Your task to perform on an android device: Open CNN.com Image 0: 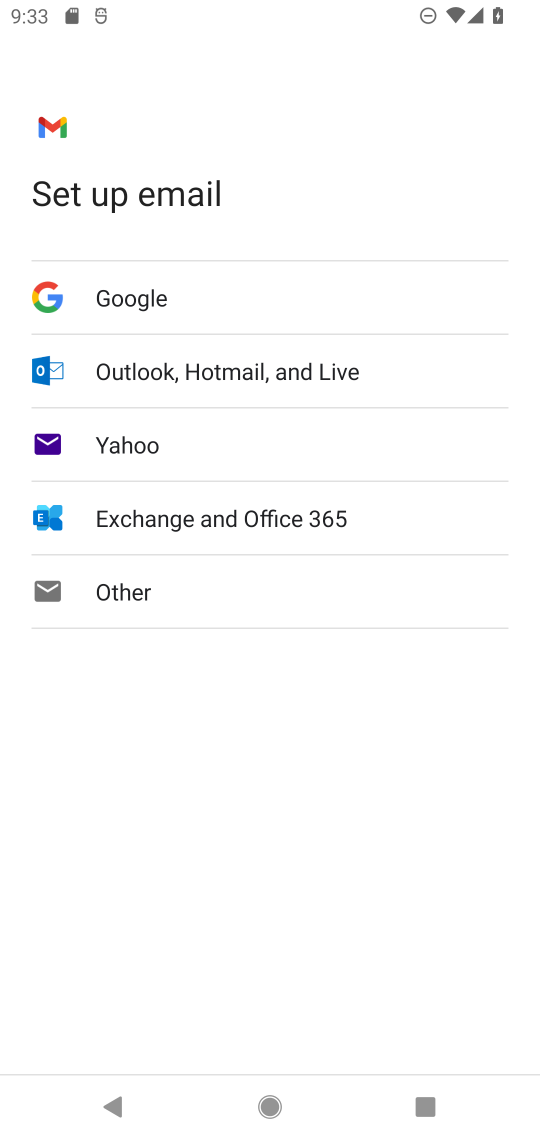
Step 0: press home button
Your task to perform on an android device: Open CNN.com Image 1: 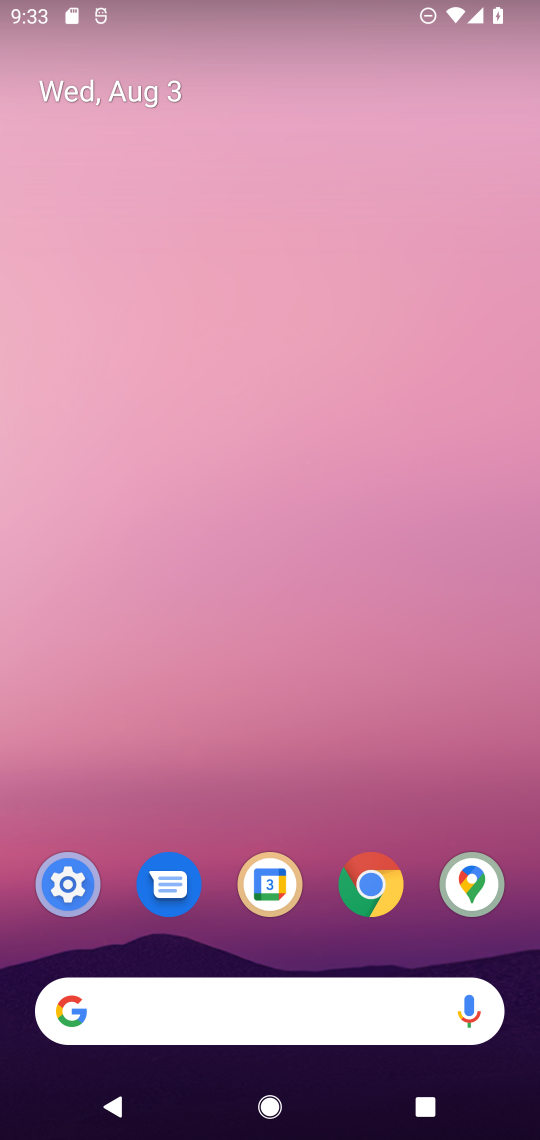
Step 1: click (167, 989)
Your task to perform on an android device: Open CNN.com Image 2: 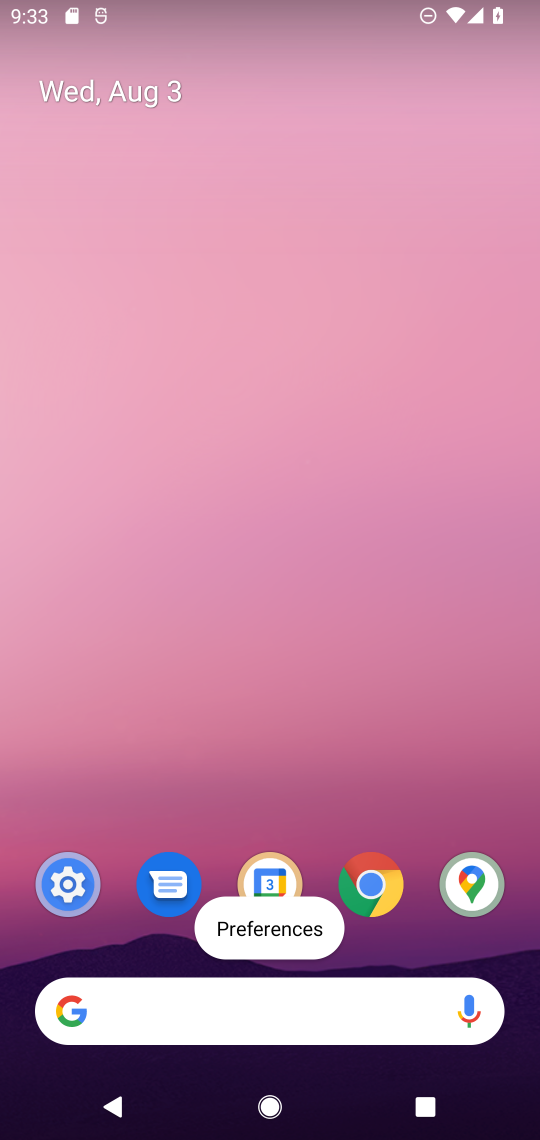
Step 2: click (160, 1010)
Your task to perform on an android device: Open CNN.com Image 3: 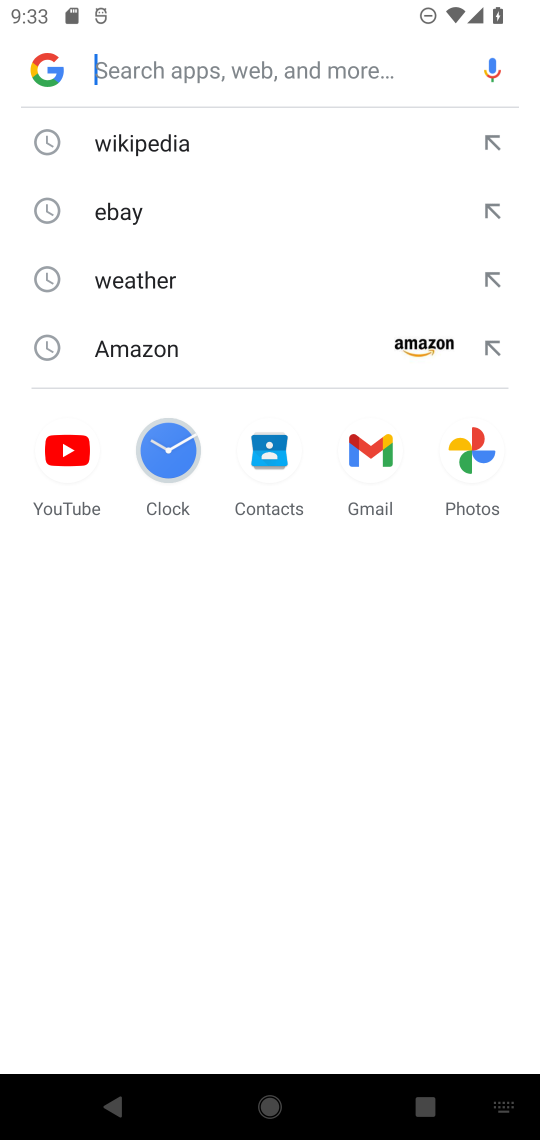
Step 3: type "CNN.com"
Your task to perform on an android device: Open CNN.com Image 4: 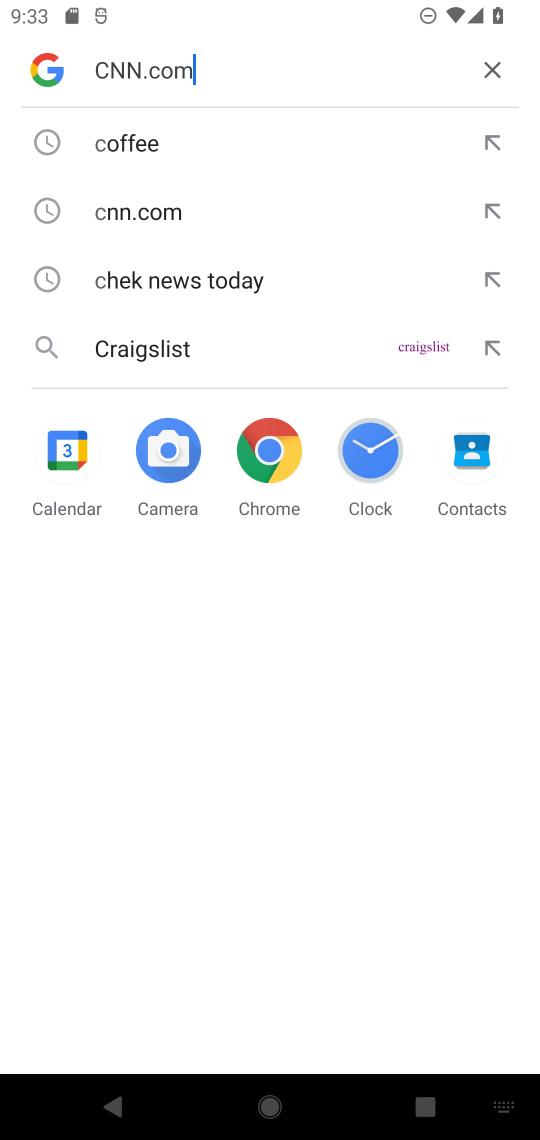
Step 4: type ""
Your task to perform on an android device: Open CNN.com Image 5: 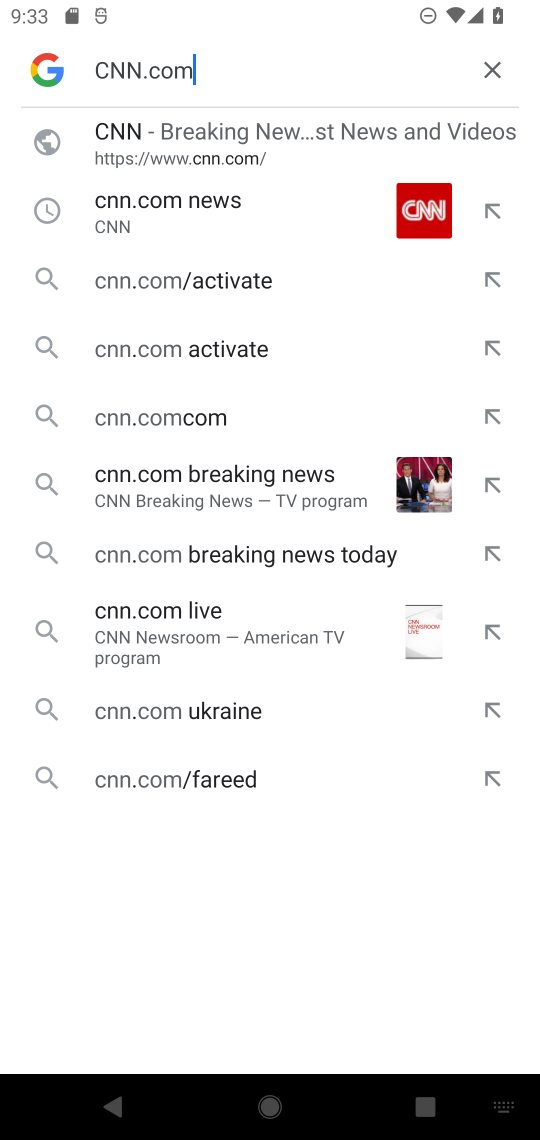
Step 5: click (147, 120)
Your task to perform on an android device: Open CNN.com Image 6: 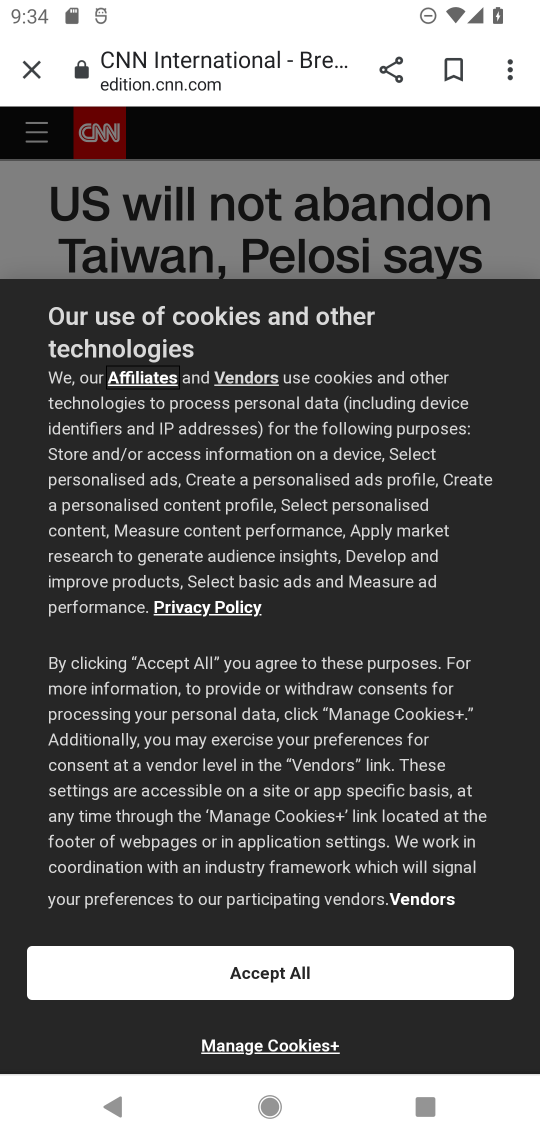
Step 6: task complete